Your task to perform on an android device: Go to Google Image 0: 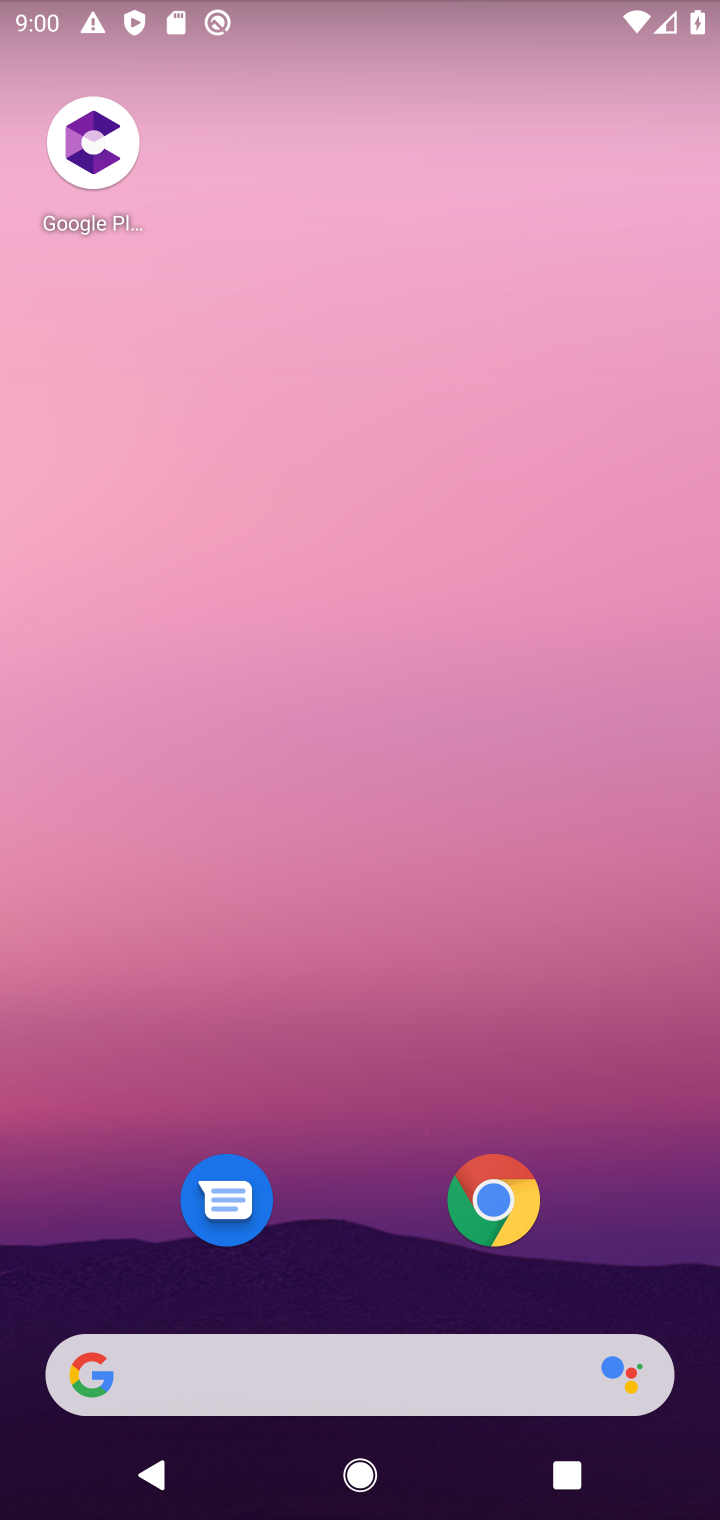
Step 0: drag from (632, 1242) to (701, 14)
Your task to perform on an android device: Go to Google Image 1: 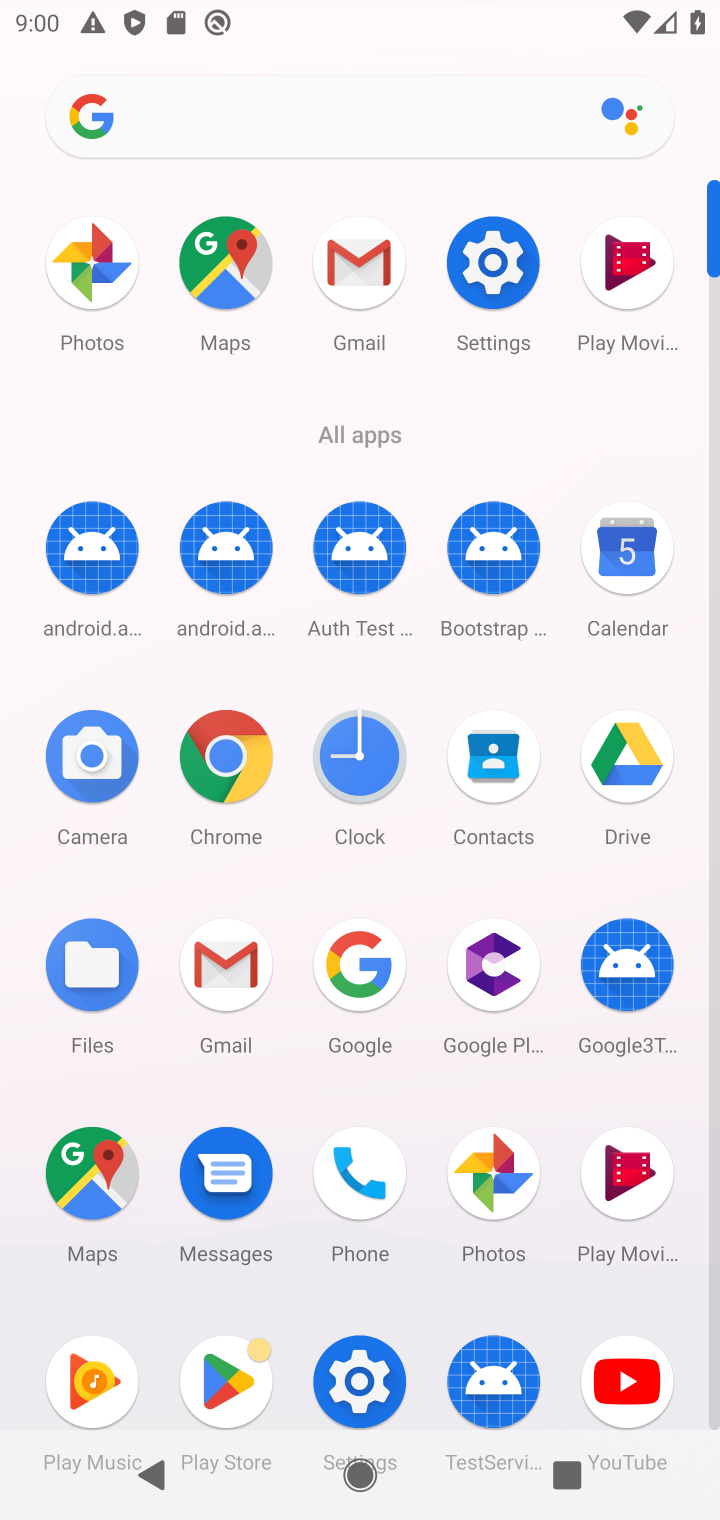
Step 1: click (385, 957)
Your task to perform on an android device: Go to Google Image 2: 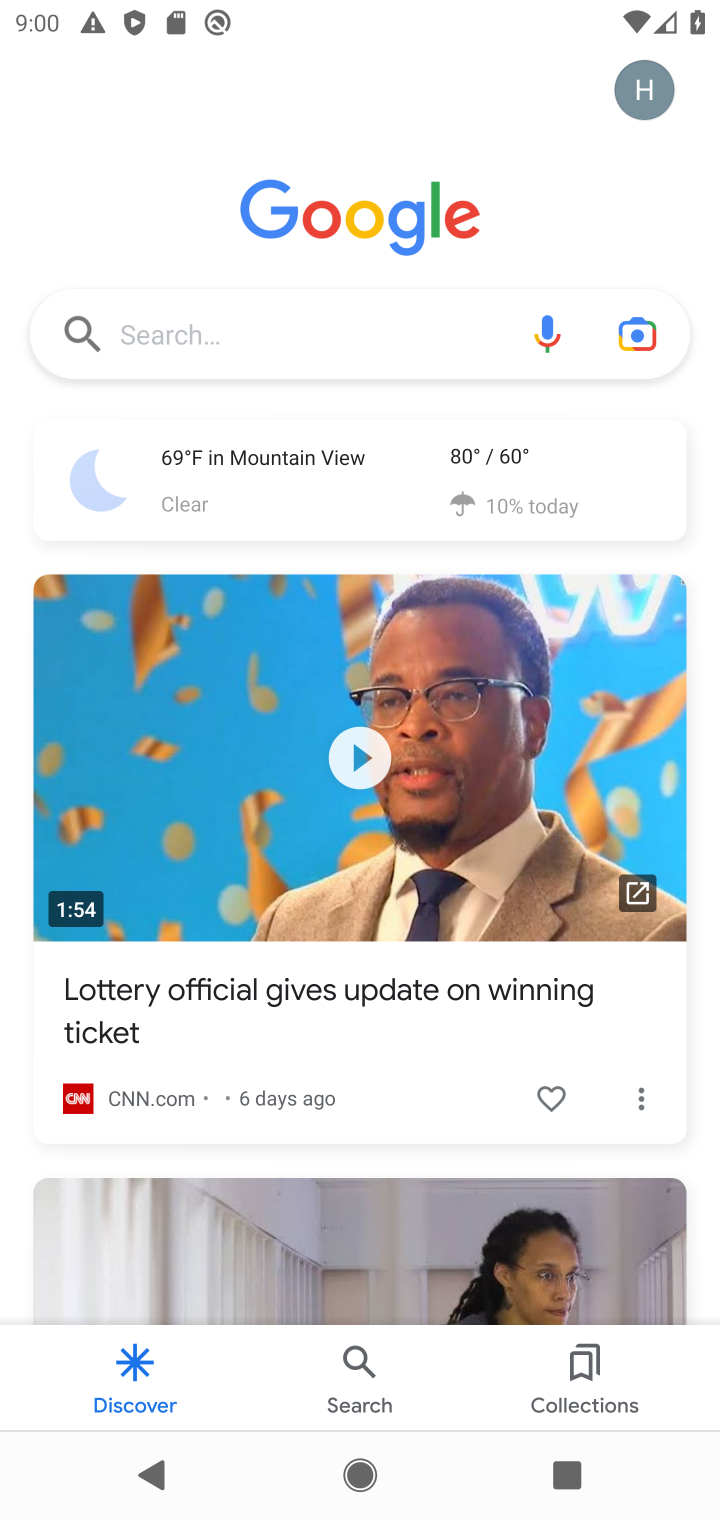
Step 2: task complete